Your task to perform on an android device: open app "ColorNote Notepad Notes" (install if not already installed) and go to login screen Image 0: 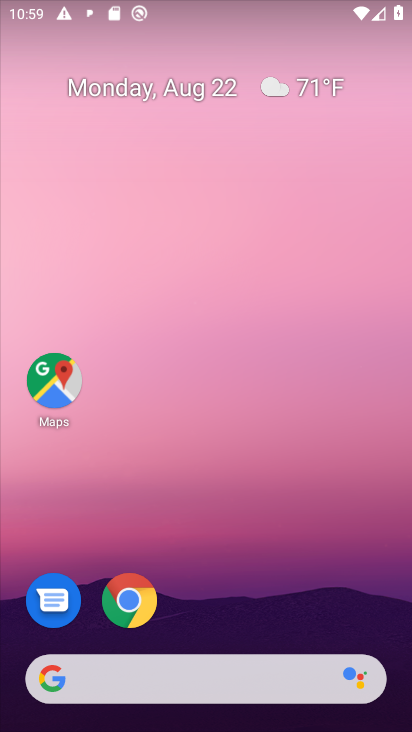
Step 0: drag from (202, 506) to (139, 8)
Your task to perform on an android device: open app "ColorNote Notepad Notes" (install if not already installed) and go to login screen Image 1: 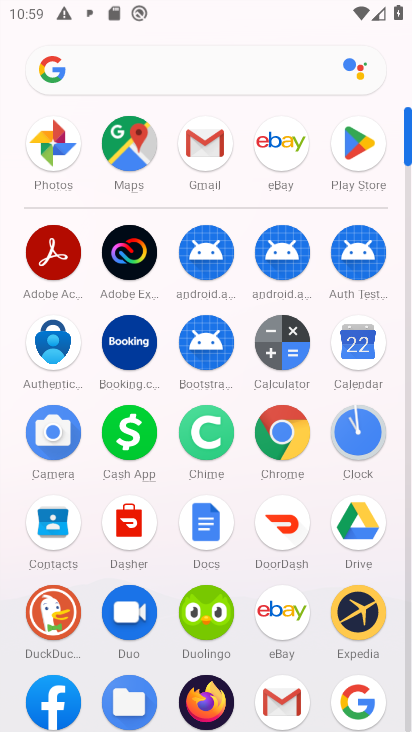
Step 1: click (333, 139)
Your task to perform on an android device: open app "ColorNote Notepad Notes" (install if not already installed) and go to login screen Image 2: 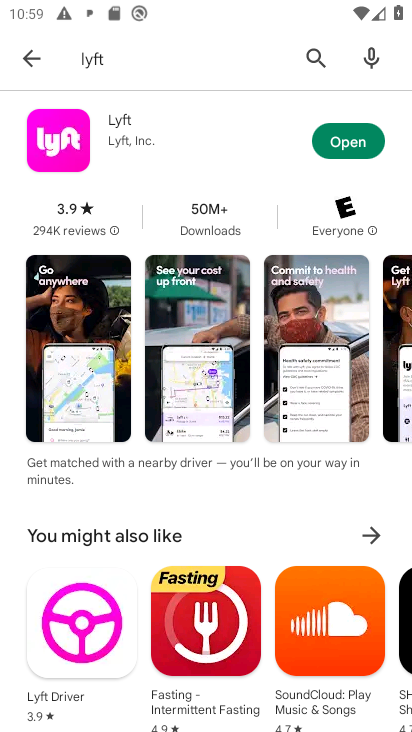
Step 2: click (302, 57)
Your task to perform on an android device: open app "ColorNote Notepad Notes" (install if not already installed) and go to login screen Image 3: 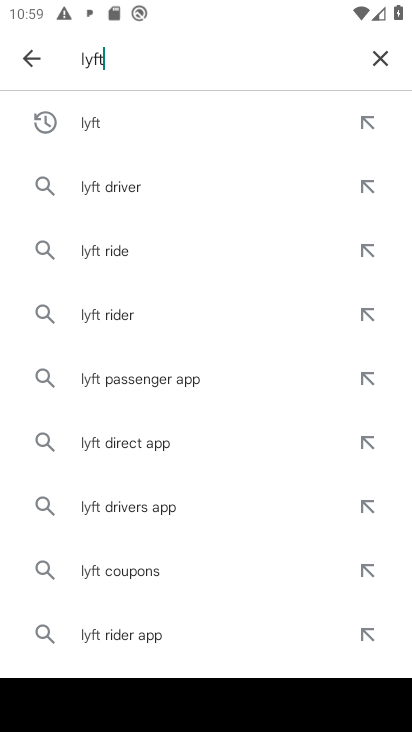
Step 3: click (371, 41)
Your task to perform on an android device: open app "ColorNote Notepad Notes" (install if not already installed) and go to login screen Image 4: 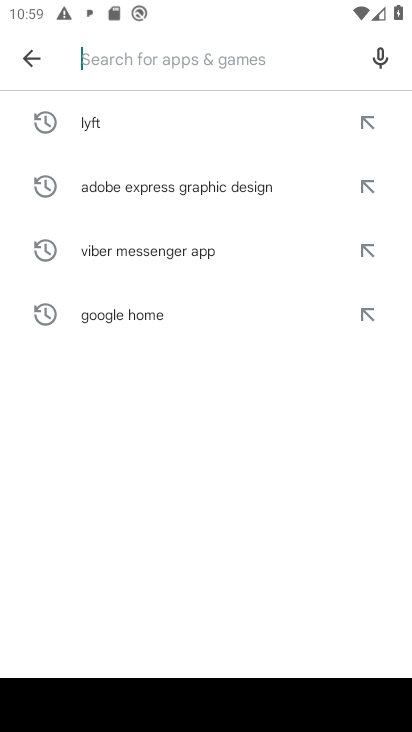
Step 4: type "ColorNote Notepad Notes"
Your task to perform on an android device: open app "ColorNote Notepad Notes" (install if not already installed) and go to login screen Image 5: 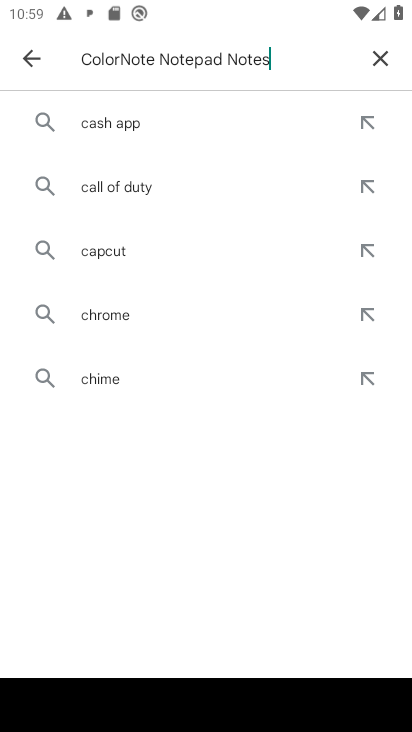
Step 5: type ""
Your task to perform on an android device: open app "ColorNote Notepad Notes" (install if not already installed) and go to login screen Image 6: 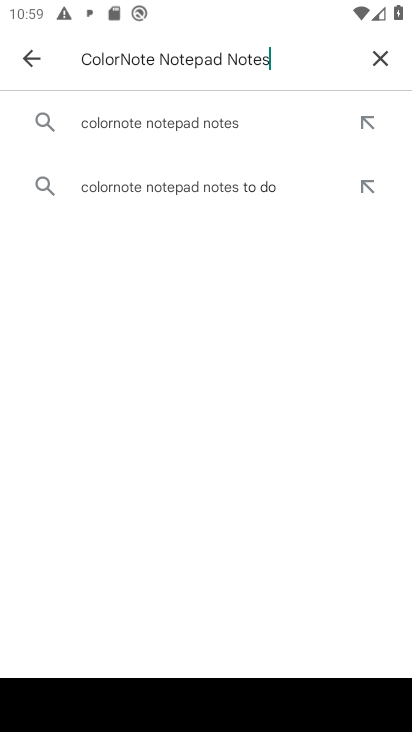
Step 6: click (141, 122)
Your task to perform on an android device: open app "ColorNote Notepad Notes" (install if not already installed) and go to login screen Image 7: 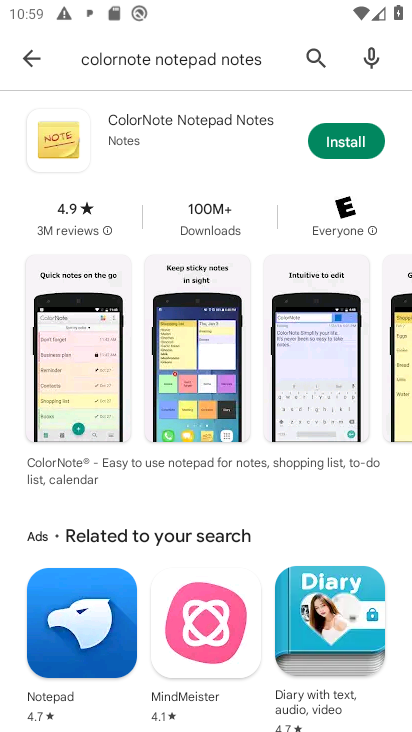
Step 7: click (335, 138)
Your task to perform on an android device: open app "ColorNote Notepad Notes" (install if not already installed) and go to login screen Image 8: 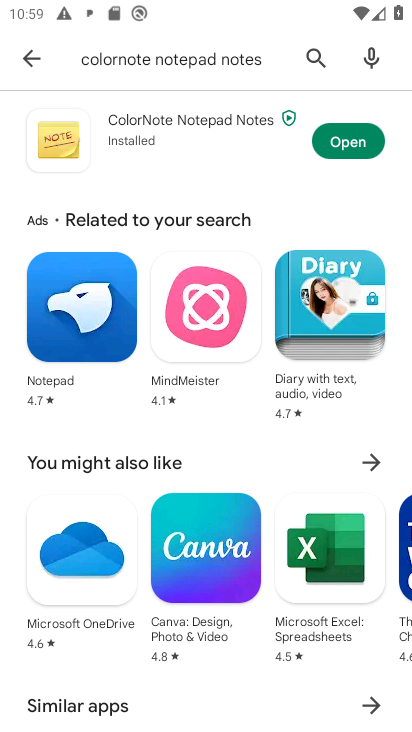
Step 8: click (345, 137)
Your task to perform on an android device: open app "ColorNote Notepad Notes" (install if not already installed) and go to login screen Image 9: 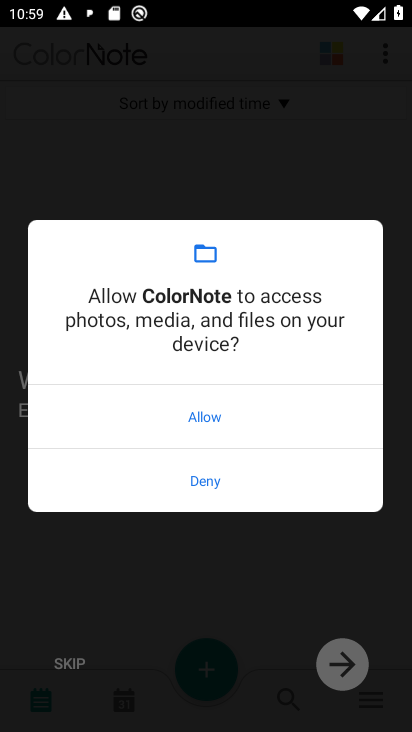
Step 9: click (215, 411)
Your task to perform on an android device: open app "ColorNote Notepad Notes" (install if not already installed) and go to login screen Image 10: 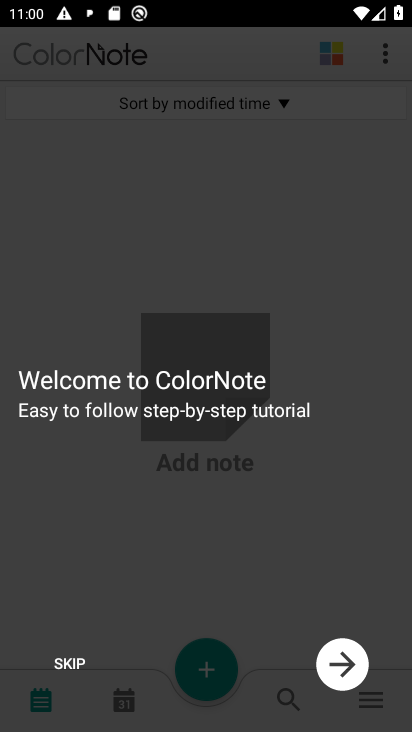
Step 10: task complete